Your task to perform on an android device: open app "eBay: The shopping marketplace" (install if not already installed) and go to login screen Image 0: 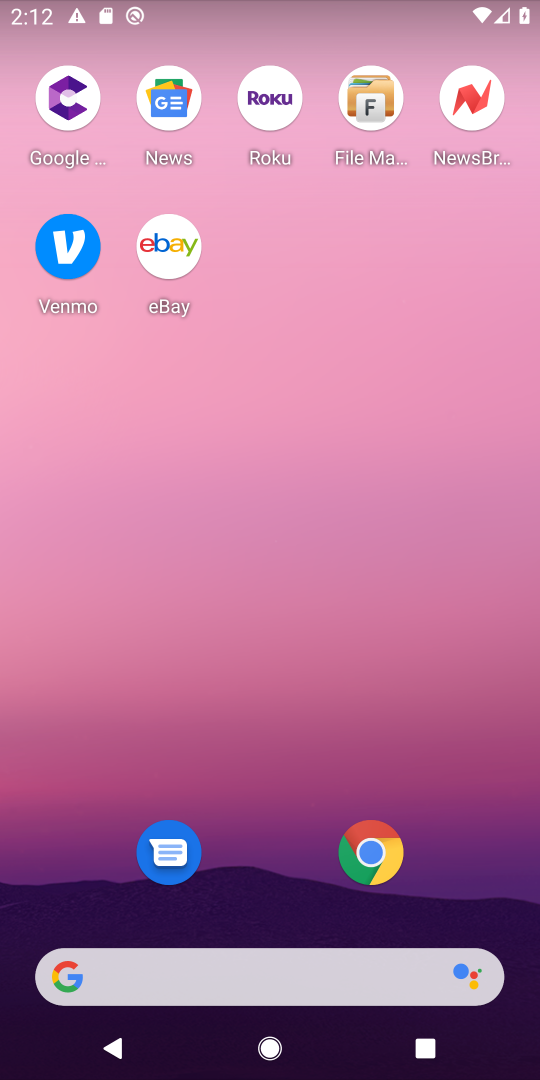
Step 0: drag from (269, 927) to (259, 87)
Your task to perform on an android device: open app "eBay: The shopping marketplace" (install if not already installed) and go to login screen Image 1: 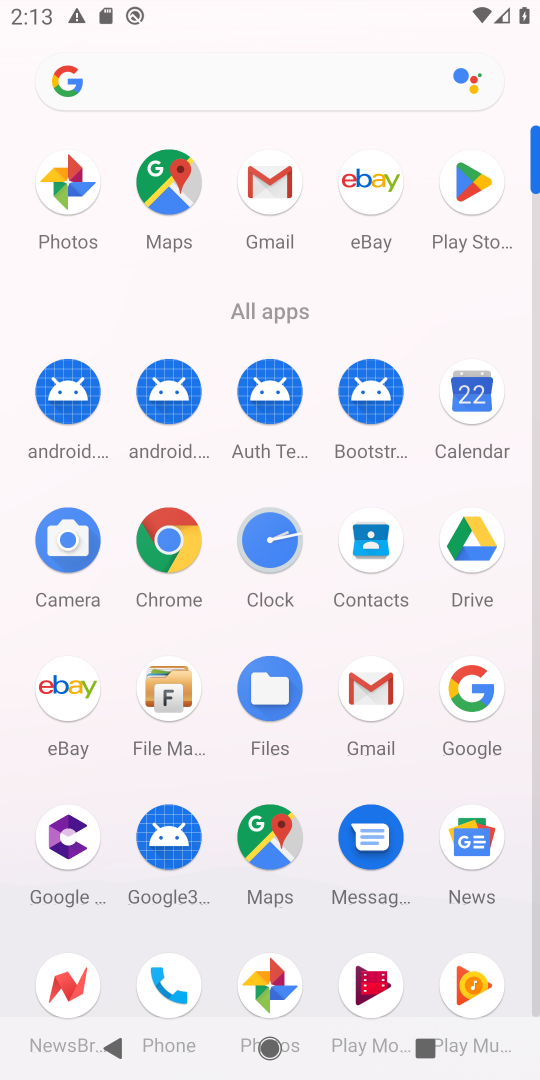
Step 1: click (477, 184)
Your task to perform on an android device: open app "eBay: The shopping marketplace" (install if not already installed) and go to login screen Image 2: 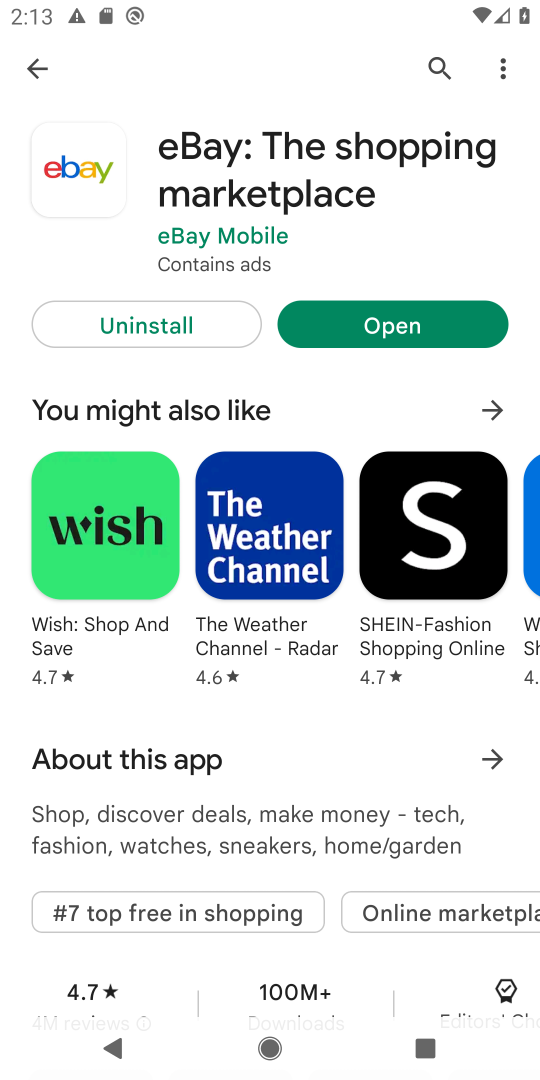
Step 2: click (440, 59)
Your task to perform on an android device: open app "eBay: The shopping marketplace" (install if not already installed) and go to login screen Image 3: 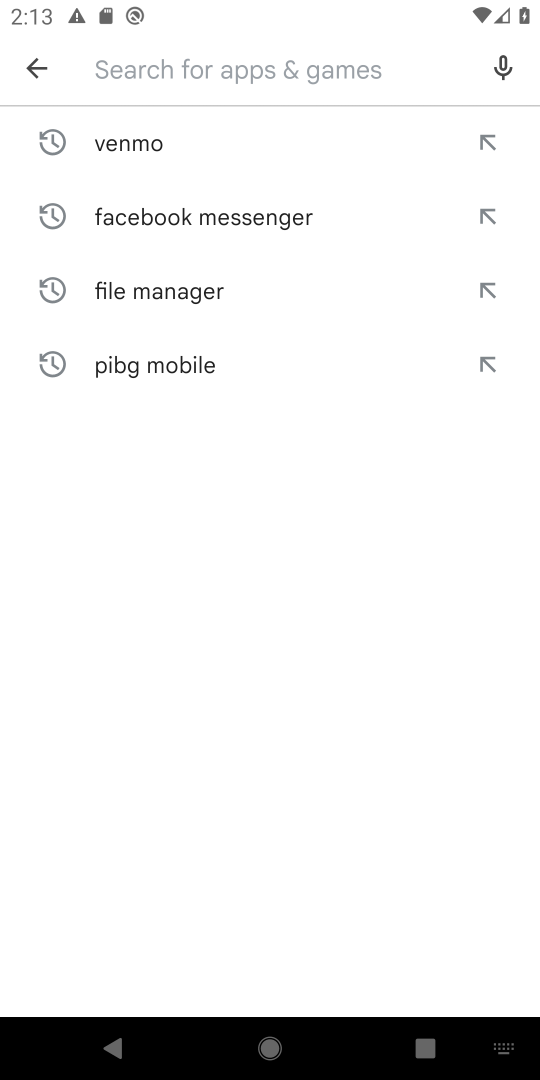
Step 3: type "eBay: The shopping marketplace"
Your task to perform on an android device: open app "eBay: The shopping marketplace" (install if not already installed) and go to login screen Image 4: 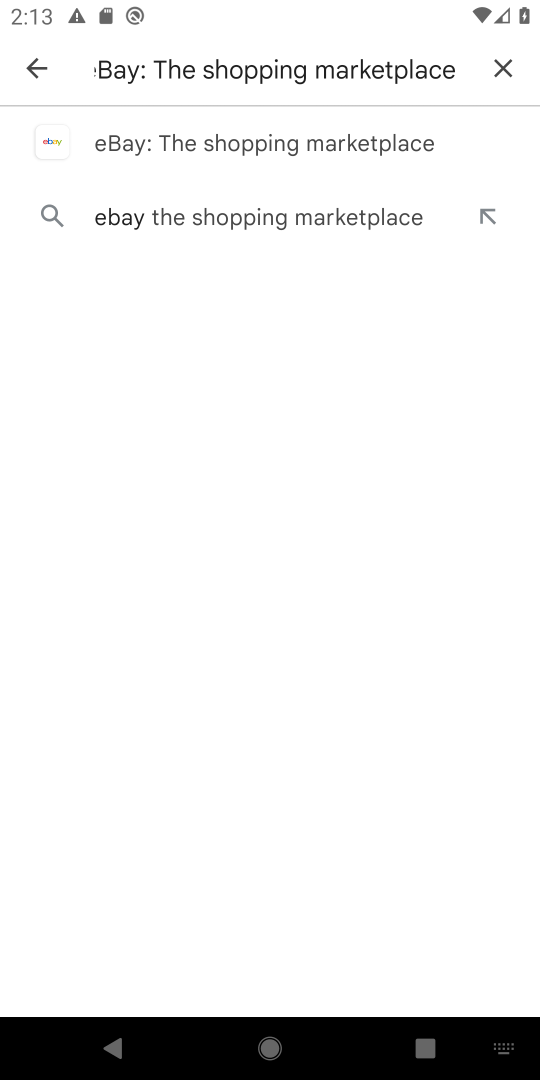
Step 4: click (236, 145)
Your task to perform on an android device: open app "eBay: The shopping marketplace" (install if not already installed) and go to login screen Image 5: 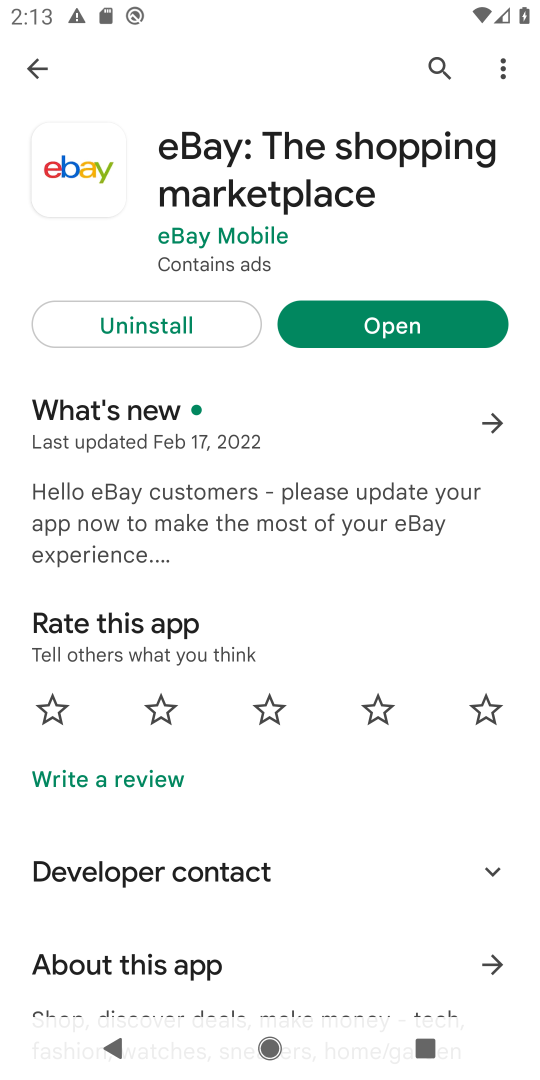
Step 5: click (433, 325)
Your task to perform on an android device: open app "eBay: The shopping marketplace" (install if not already installed) and go to login screen Image 6: 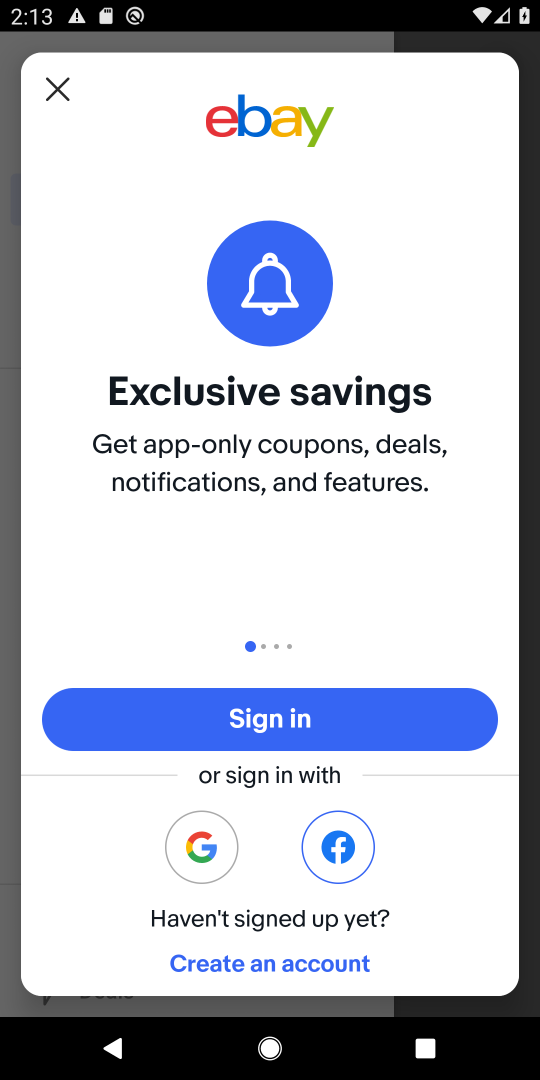
Step 6: task complete